Your task to perform on an android device: Find coffee shops on Maps Image 0: 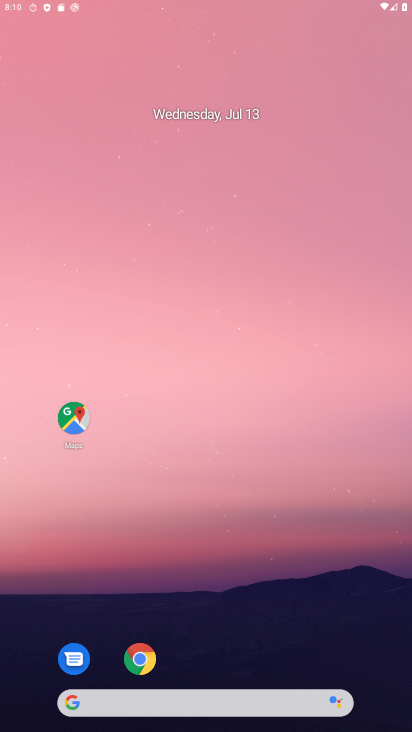
Step 0: click (202, 252)
Your task to perform on an android device: Find coffee shops on Maps Image 1: 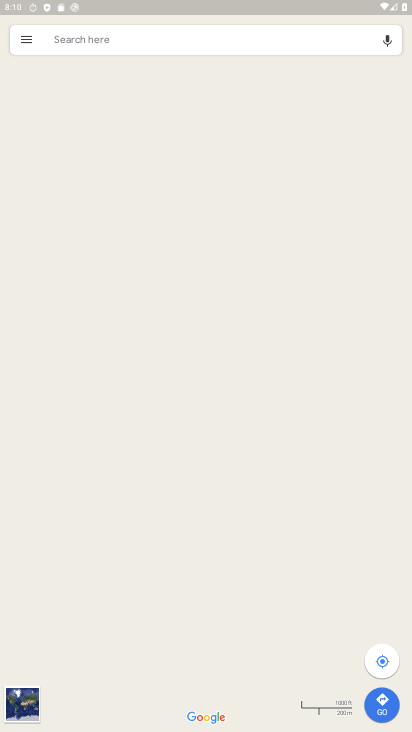
Step 1: press home button
Your task to perform on an android device: Find coffee shops on Maps Image 2: 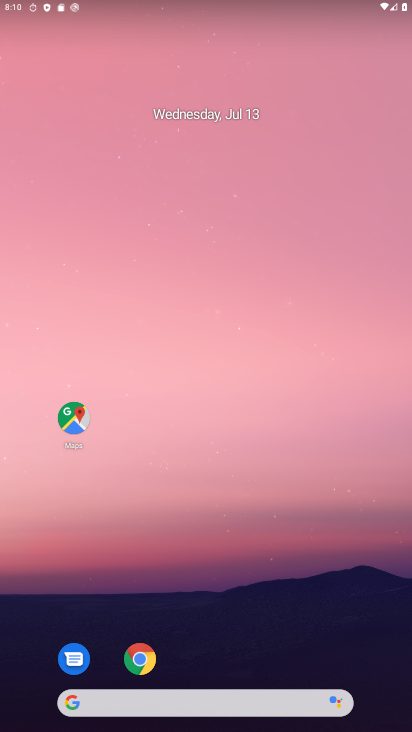
Step 2: drag from (376, 648) to (241, 131)
Your task to perform on an android device: Find coffee shops on Maps Image 3: 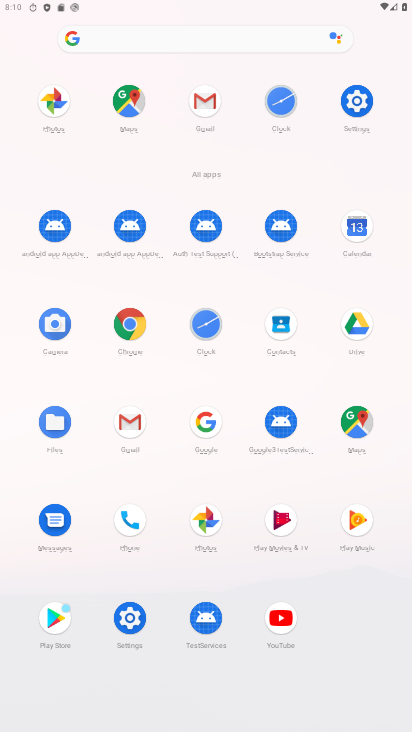
Step 3: click (363, 427)
Your task to perform on an android device: Find coffee shops on Maps Image 4: 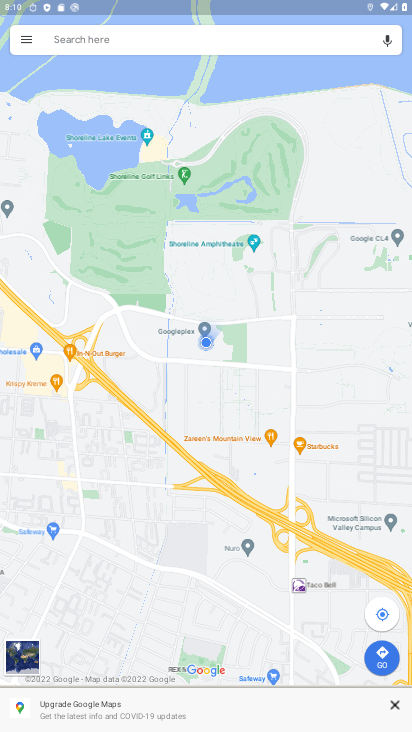
Step 4: click (163, 35)
Your task to perform on an android device: Find coffee shops on Maps Image 5: 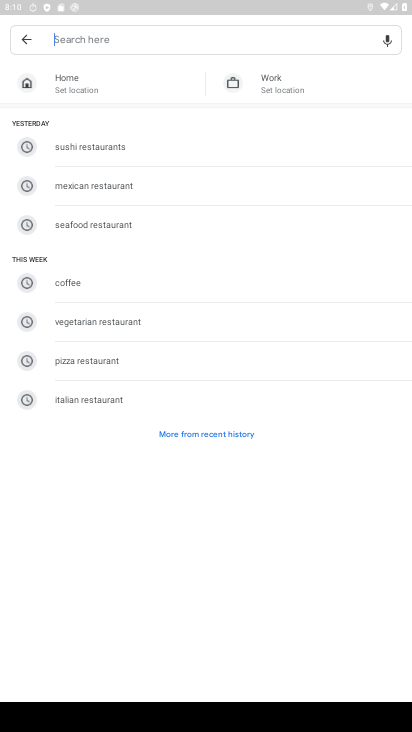
Step 5: click (78, 282)
Your task to perform on an android device: Find coffee shops on Maps Image 6: 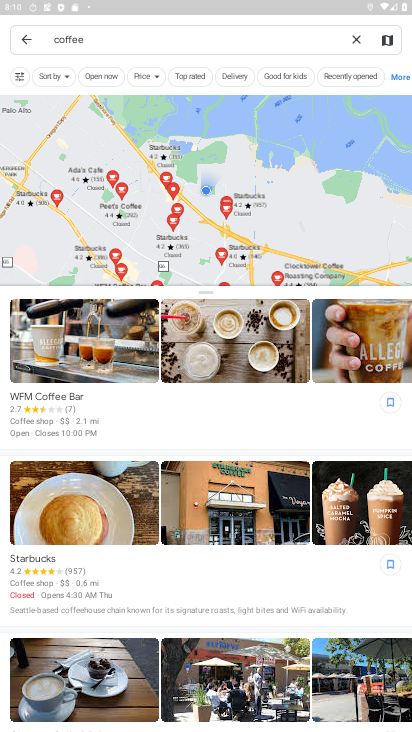
Step 6: task complete